Your task to perform on an android device: What's the weather going to be this weekend? Image 0: 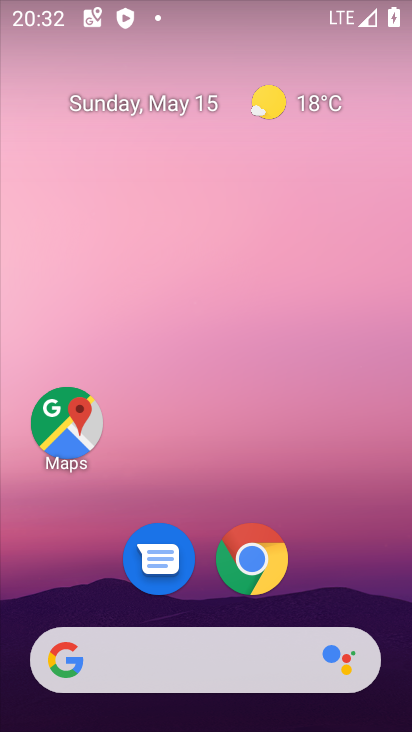
Step 0: press home button
Your task to perform on an android device: What's the weather going to be this weekend? Image 1: 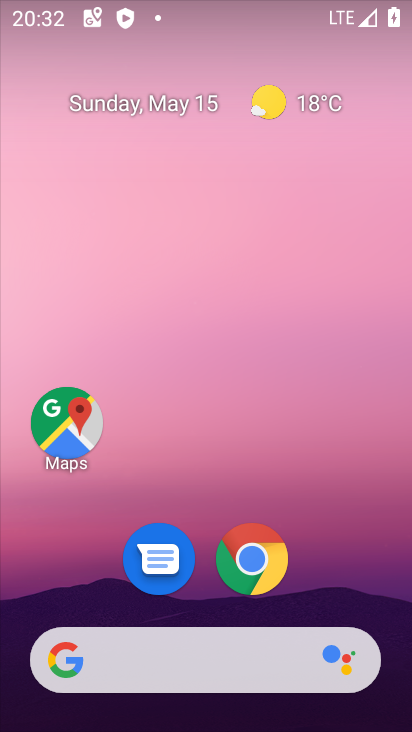
Step 1: drag from (330, 524) to (214, 86)
Your task to perform on an android device: What's the weather going to be this weekend? Image 2: 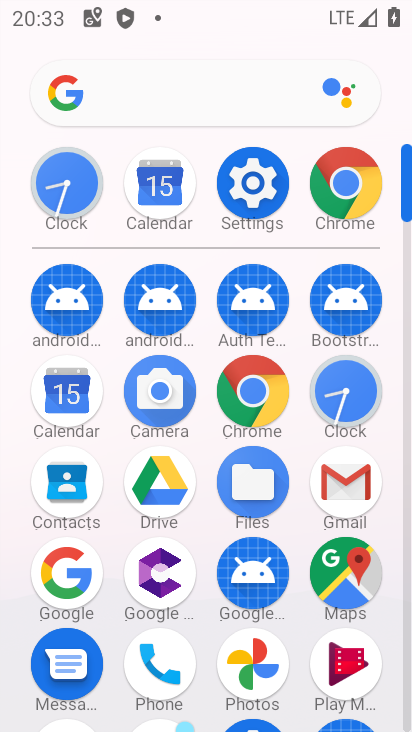
Step 2: click (59, 572)
Your task to perform on an android device: What's the weather going to be this weekend? Image 3: 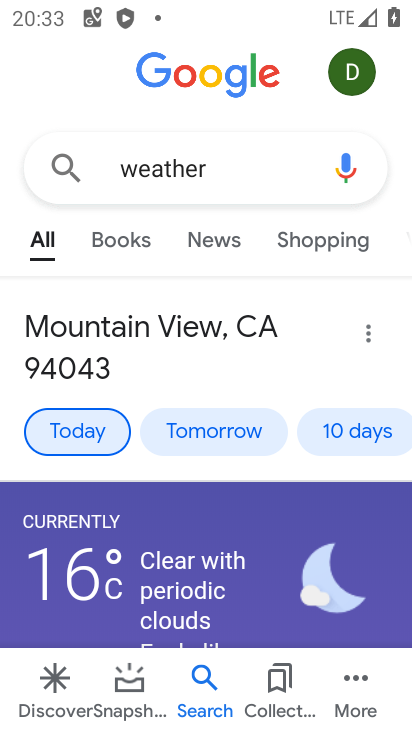
Step 3: click (328, 438)
Your task to perform on an android device: What's the weather going to be this weekend? Image 4: 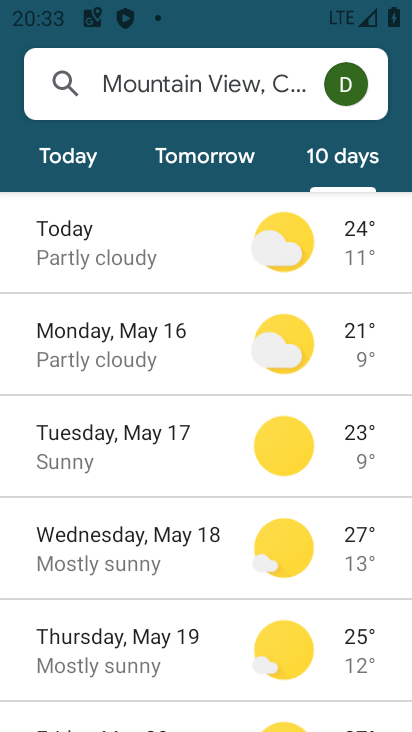
Step 4: task complete